Your task to perform on an android device: remove spam from my inbox in the gmail app Image 0: 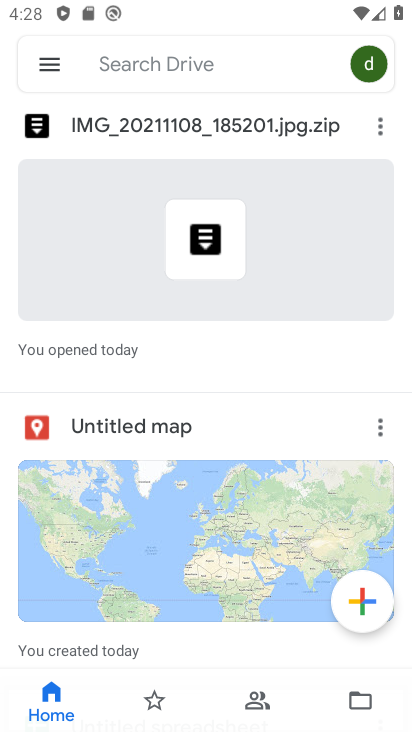
Step 0: press home button
Your task to perform on an android device: remove spam from my inbox in the gmail app Image 1: 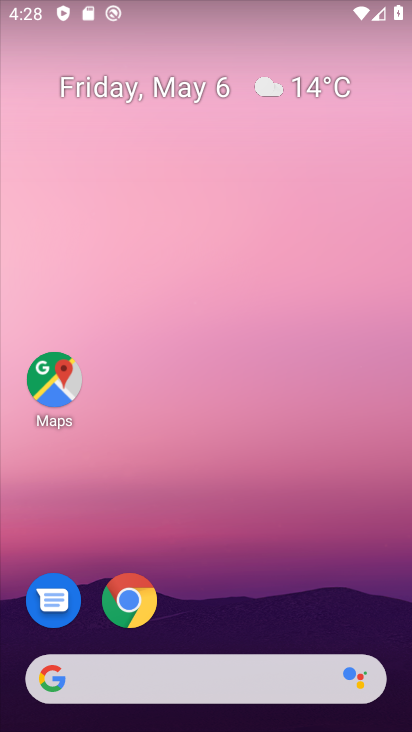
Step 1: drag from (222, 553) to (296, 149)
Your task to perform on an android device: remove spam from my inbox in the gmail app Image 2: 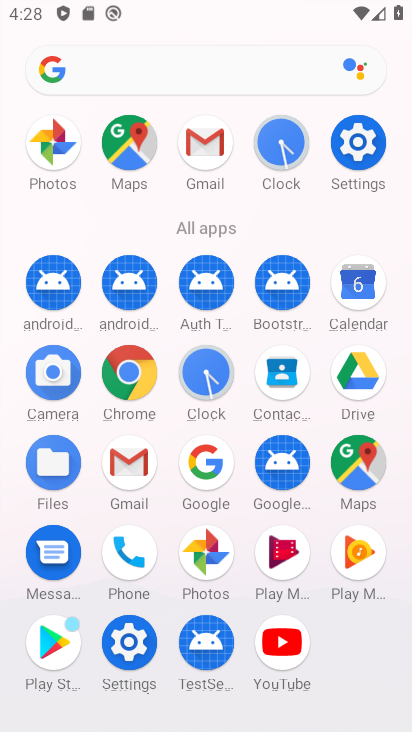
Step 2: click (121, 474)
Your task to perform on an android device: remove spam from my inbox in the gmail app Image 3: 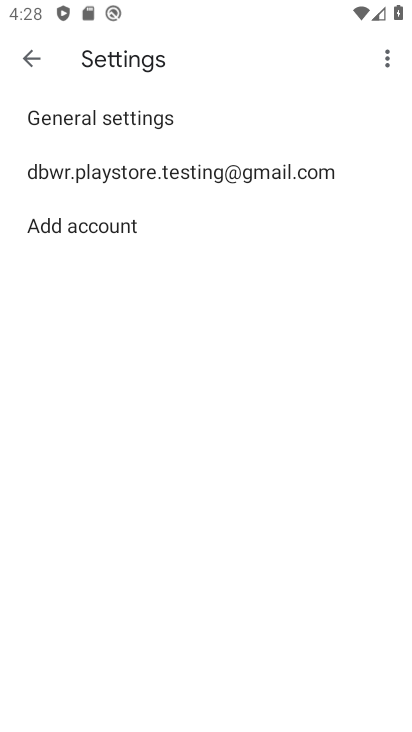
Step 3: press back button
Your task to perform on an android device: remove spam from my inbox in the gmail app Image 4: 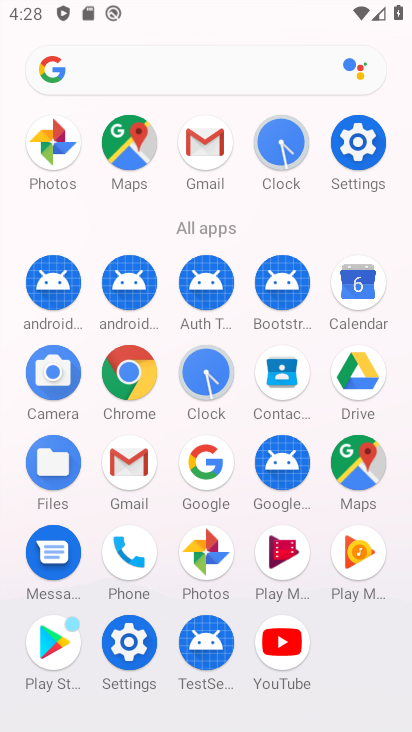
Step 4: click (119, 477)
Your task to perform on an android device: remove spam from my inbox in the gmail app Image 5: 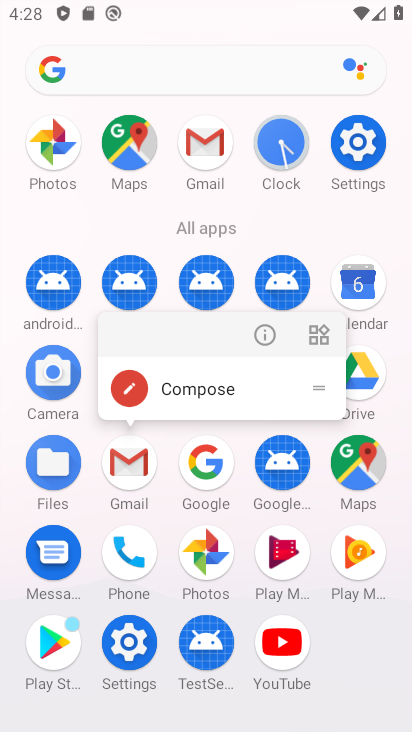
Step 5: click (134, 460)
Your task to perform on an android device: remove spam from my inbox in the gmail app Image 6: 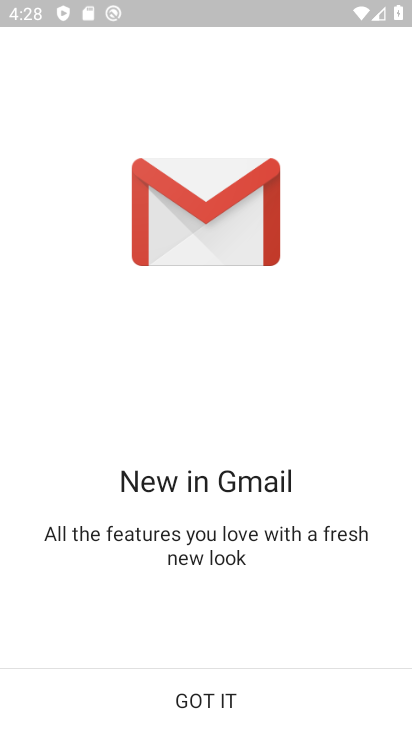
Step 6: click (186, 702)
Your task to perform on an android device: remove spam from my inbox in the gmail app Image 7: 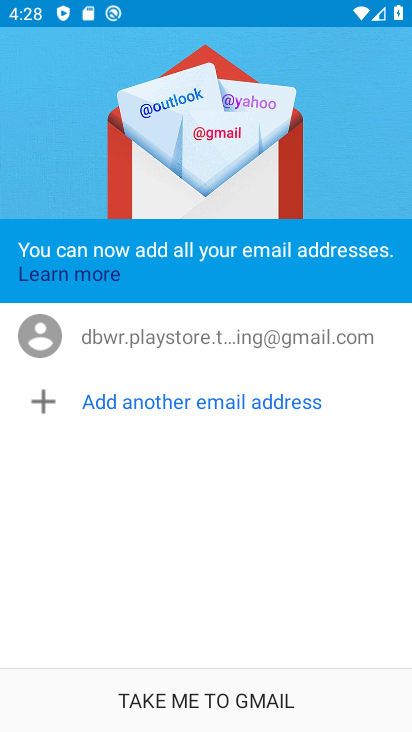
Step 7: click (191, 702)
Your task to perform on an android device: remove spam from my inbox in the gmail app Image 8: 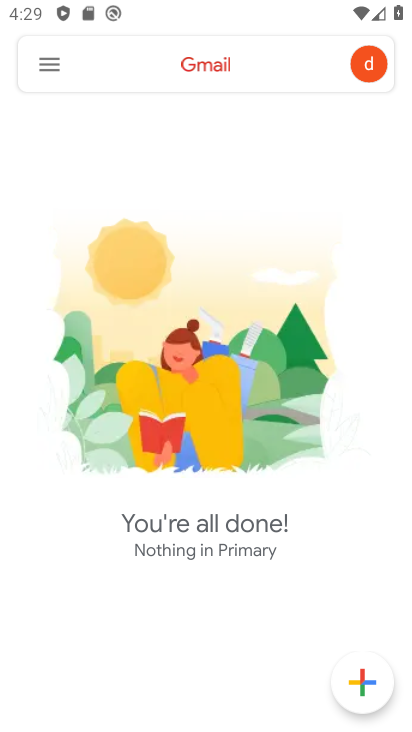
Step 8: click (54, 72)
Your task to perform on an android device: remove spam from my inbox in the gmail app Image 9: 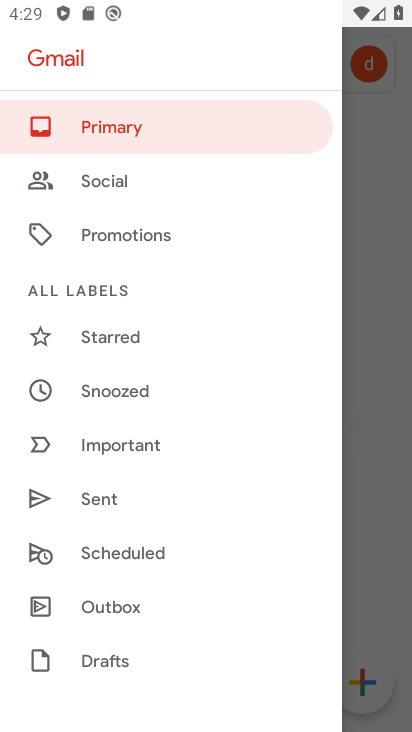
Step 9: drag from (162, 621) to (191, 283)
Your task to perform on an android device: remove spam from my inbox in the gmail app Image 10: 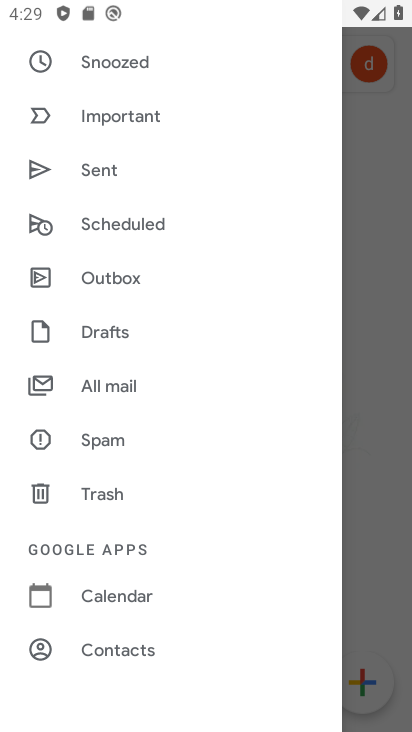
Step 10: click (113, 444)
Your task to perform on an android device: remove spam from my inbox in the gmail app Image 11: 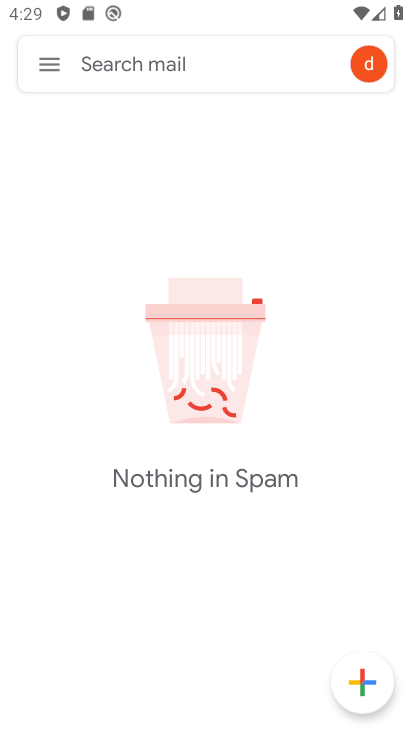
Step 11: task complete